Your task to perform on an android device: Open Google Chrome and open the bookmarks view Image 0: 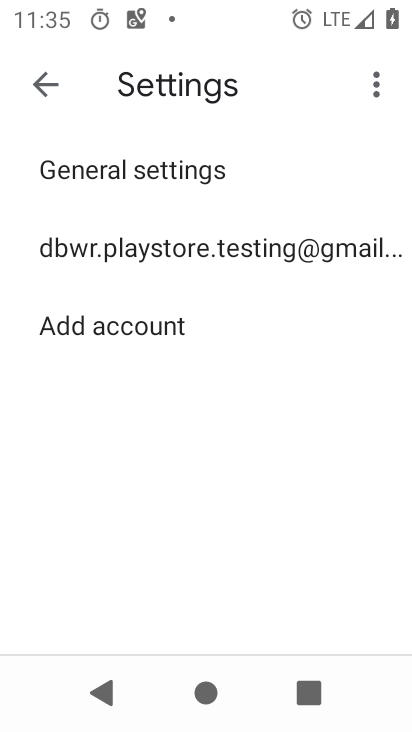
Step 0: press back button
Your task to perform on an android device: Open Google Chrome and open the bookmarks view Image 1: 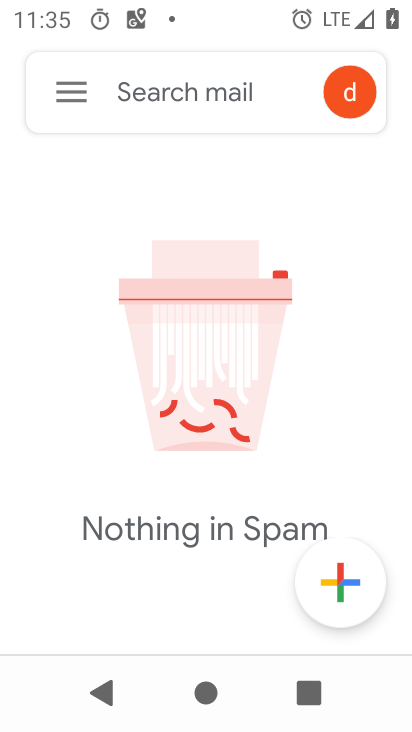
Step 1: press back button
Your task to perform on an android device: Open Google Chrome and open the bookmarks view Image 2: 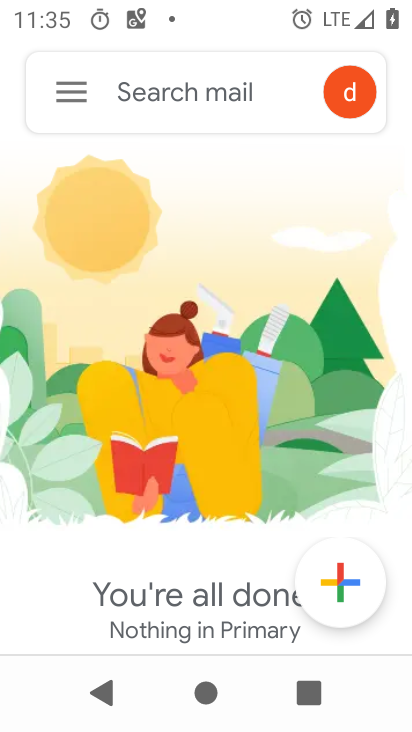
Step 2: press home button
Your task to perform on an android device: Open Google Chrome and open the bookmarks view Image 3: 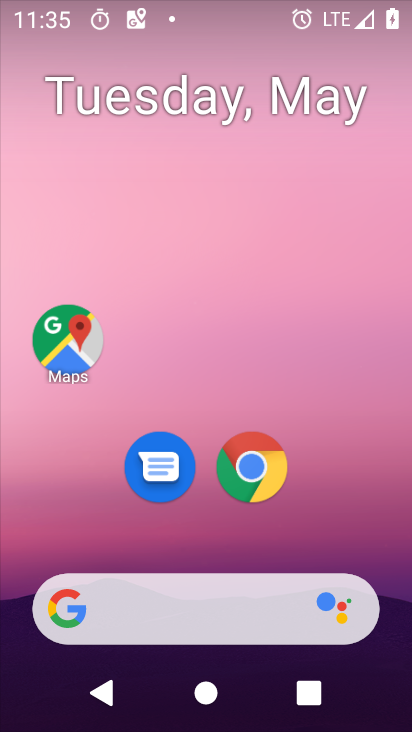
Step 3: drag from (381, 535) to (237, 6)
Your task to perform on an android device: Open Google Chrome and open the bookmarks view Image 4: 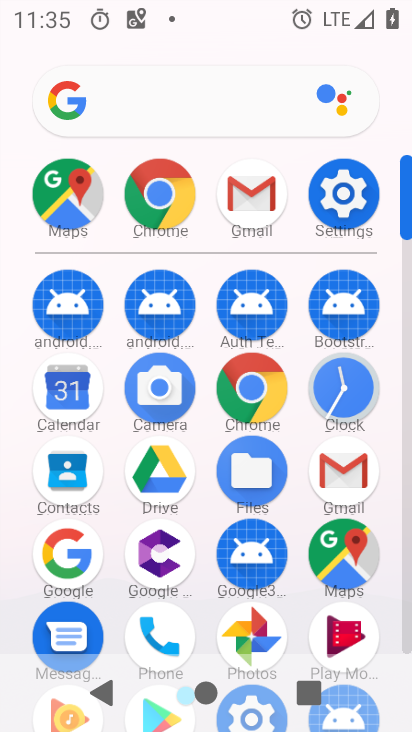
Step 4: click (157, 189)
Your task to perform on an android device: Open Google Chrome and open the bookmarks view Image 5: 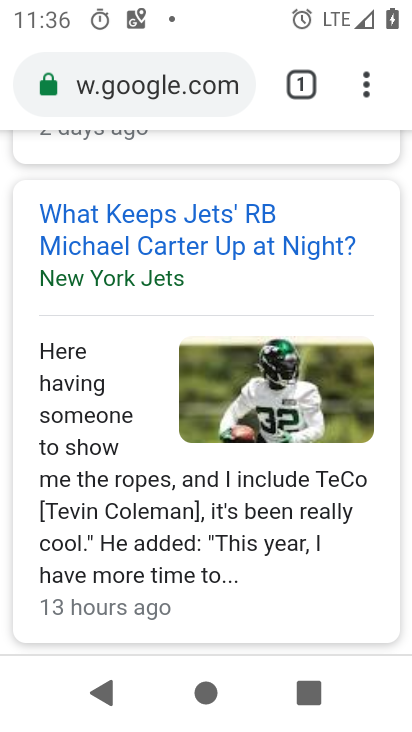
Step 5: task complete